Your task to perform on an android device: open the mobile data screen to see how much data has been used Image 0: 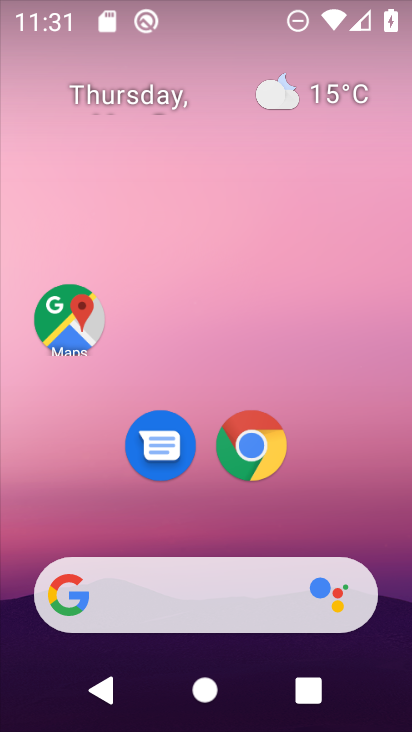
Step 0: drag from (235, 540) to (203, 3)
Your task to perform on an android device: open the mobile data screen to see how much data has been used Image 1: 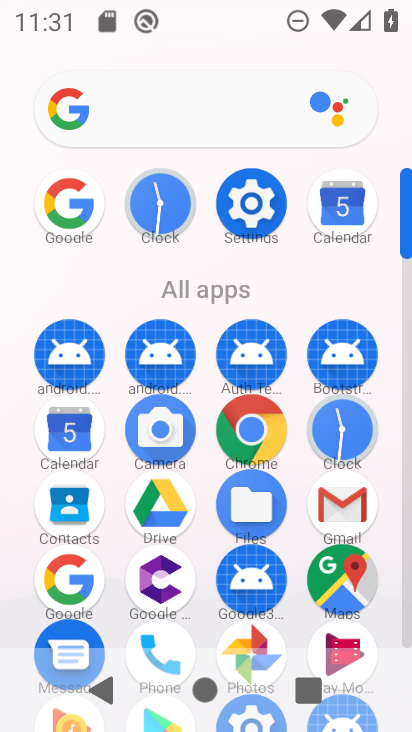
Step 1: drag from (202, 624) to (209, 213)
Your task to perform on an android device: open the mobile data screen to see how much data has been used Image 2: 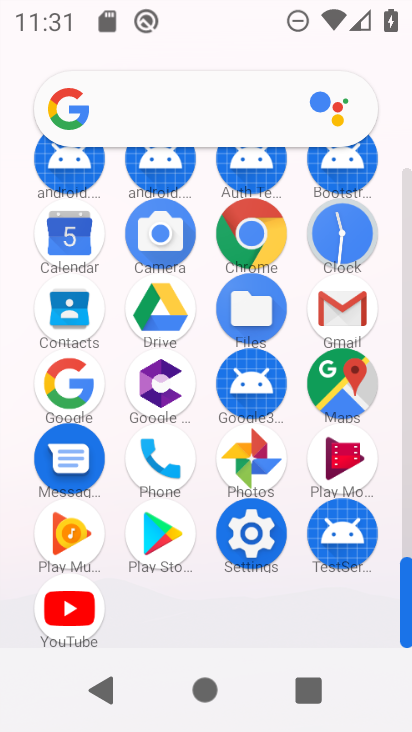
Step 2: click (261, 548)
Your task to perform on an android device: open the mobile data screen to see how much data has been used Image 3: 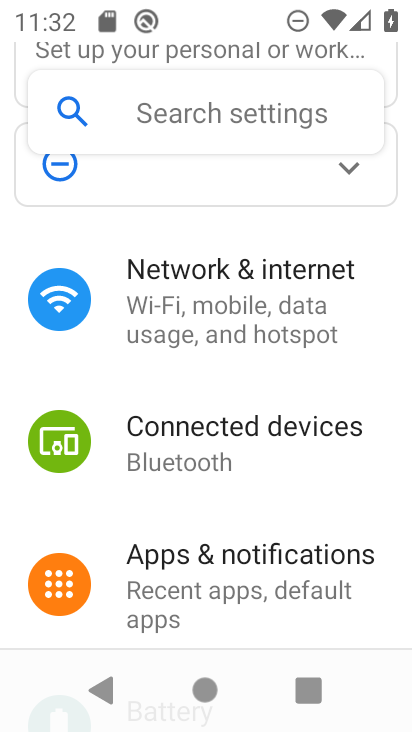
Step 3: click (230, 315)
Your task to perform on an android device: open the mobile data screen to see how much data has been used Image 4: 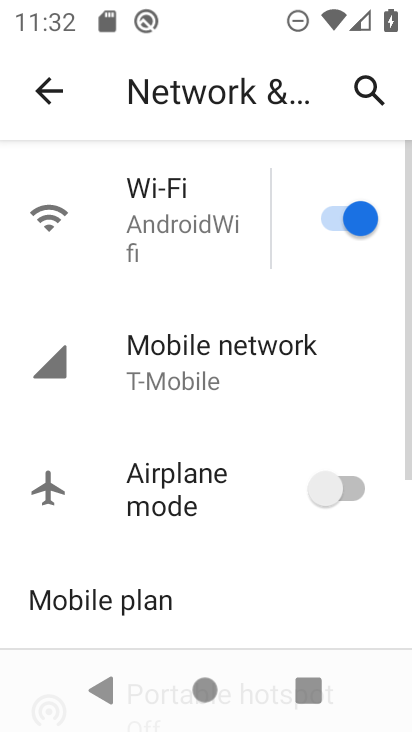
Step 4: click (183, 343)
Your task to perform on an android device: open the mobile data screen to see how much data has been used Image 5: 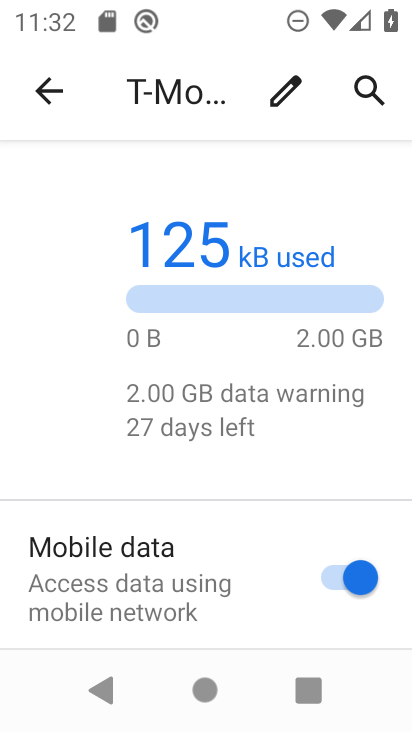
Step 5: task complete